Your task to perform on an android device: delete a single message in the gmail app Image 0: 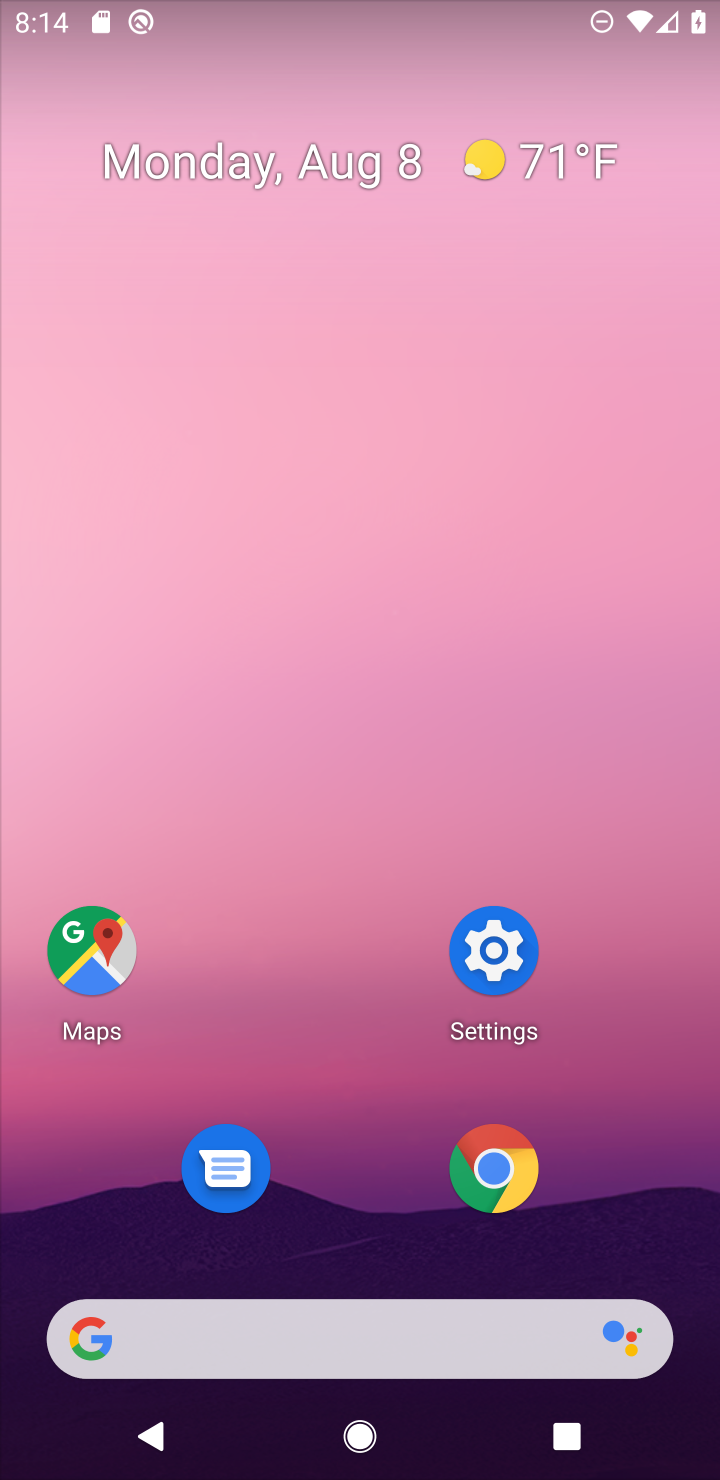
Step 0: drag from (302, 1008) to (530, 31)
Your task to perform on an android device: delete a single message in the gmail app Image 1: 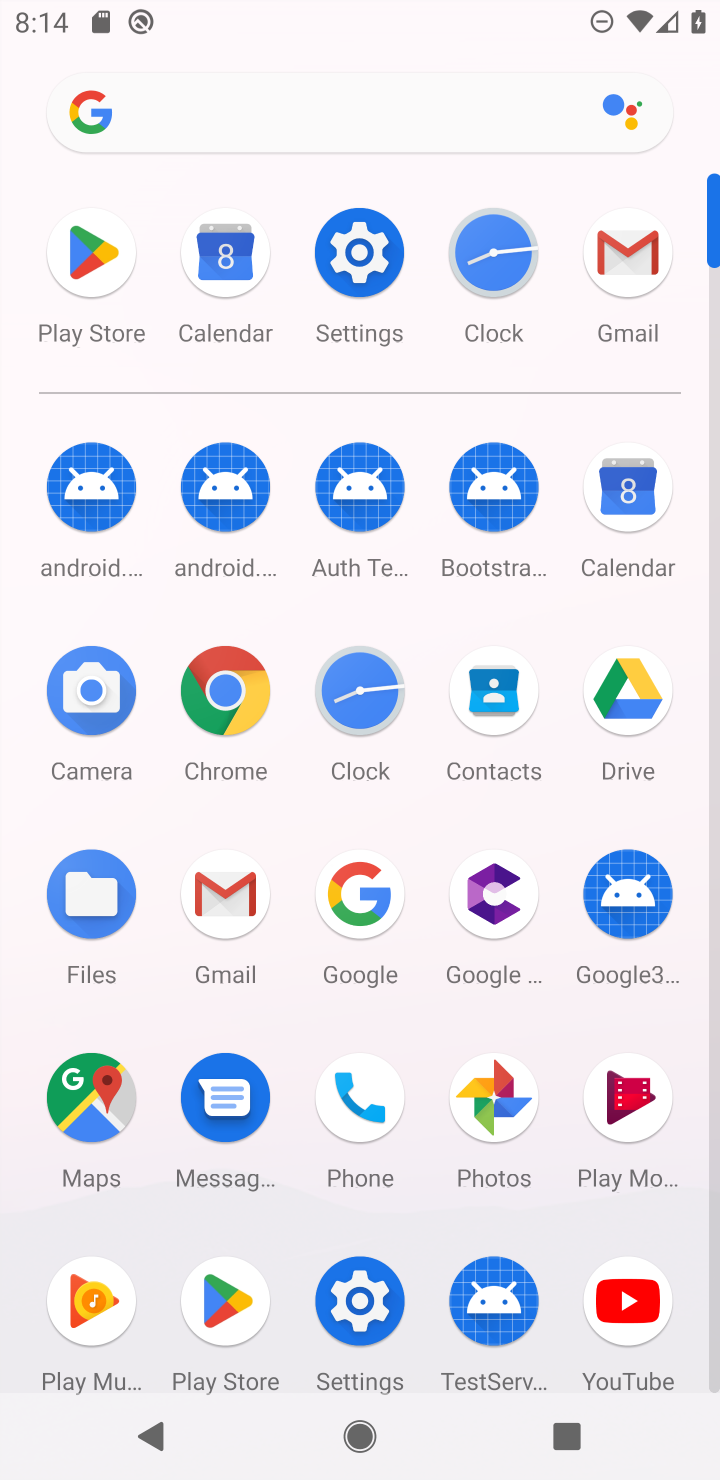
Step 1: click (215, 916)
Your task to perform on an android device: delete a single message in the gmail app Image 2: 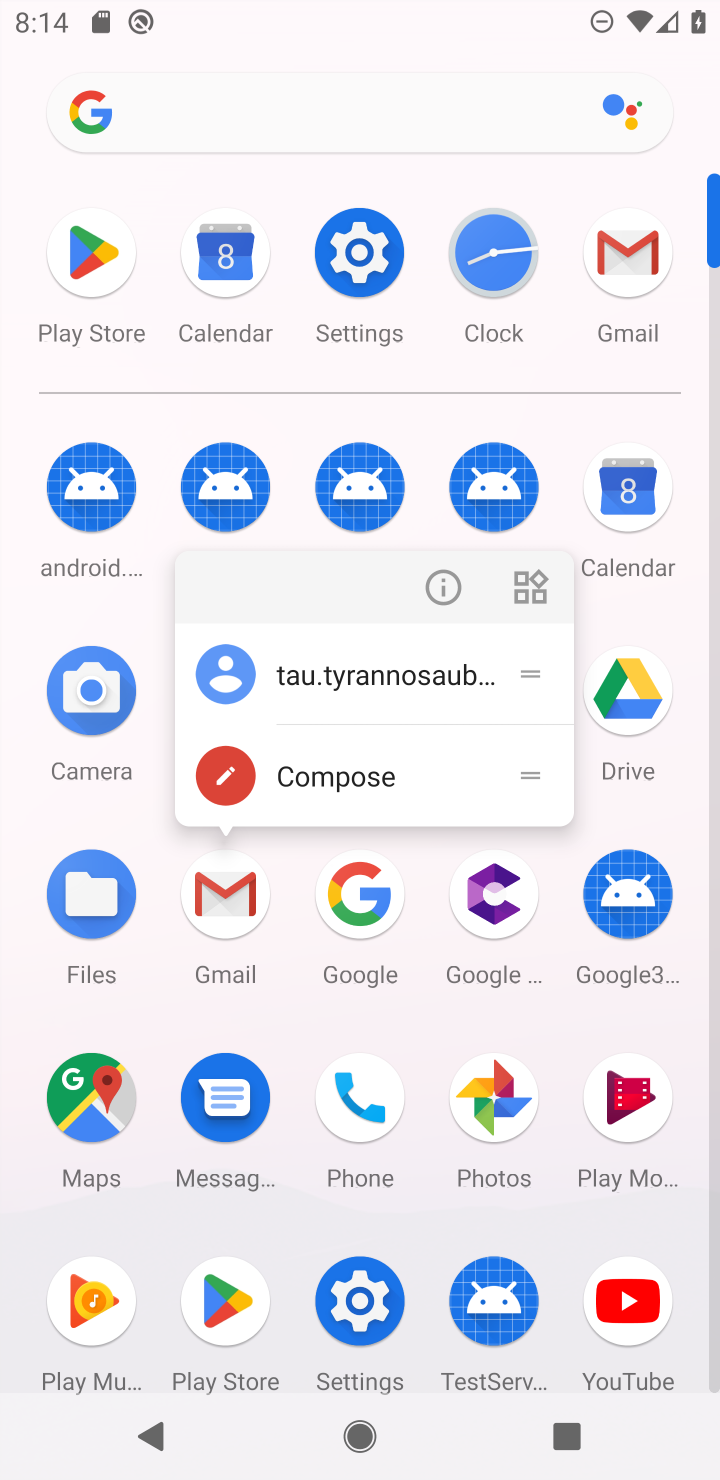
Step 2: click (245, 892)
Your task to perform on an android device: delete a single message in the gmail app Image 3: 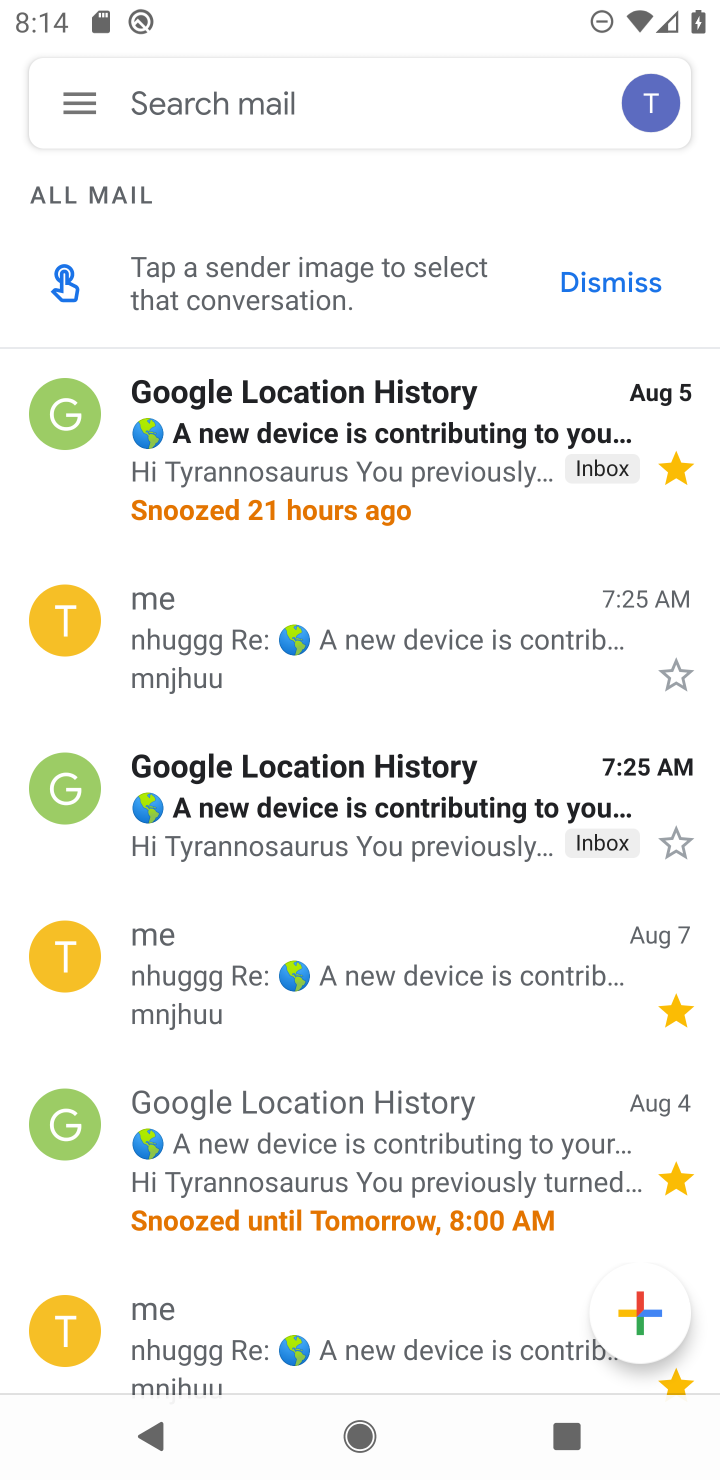
Step 3: click (71, 419)
Your task to perform on an android device: delete a single message in the gmail app Image 4: 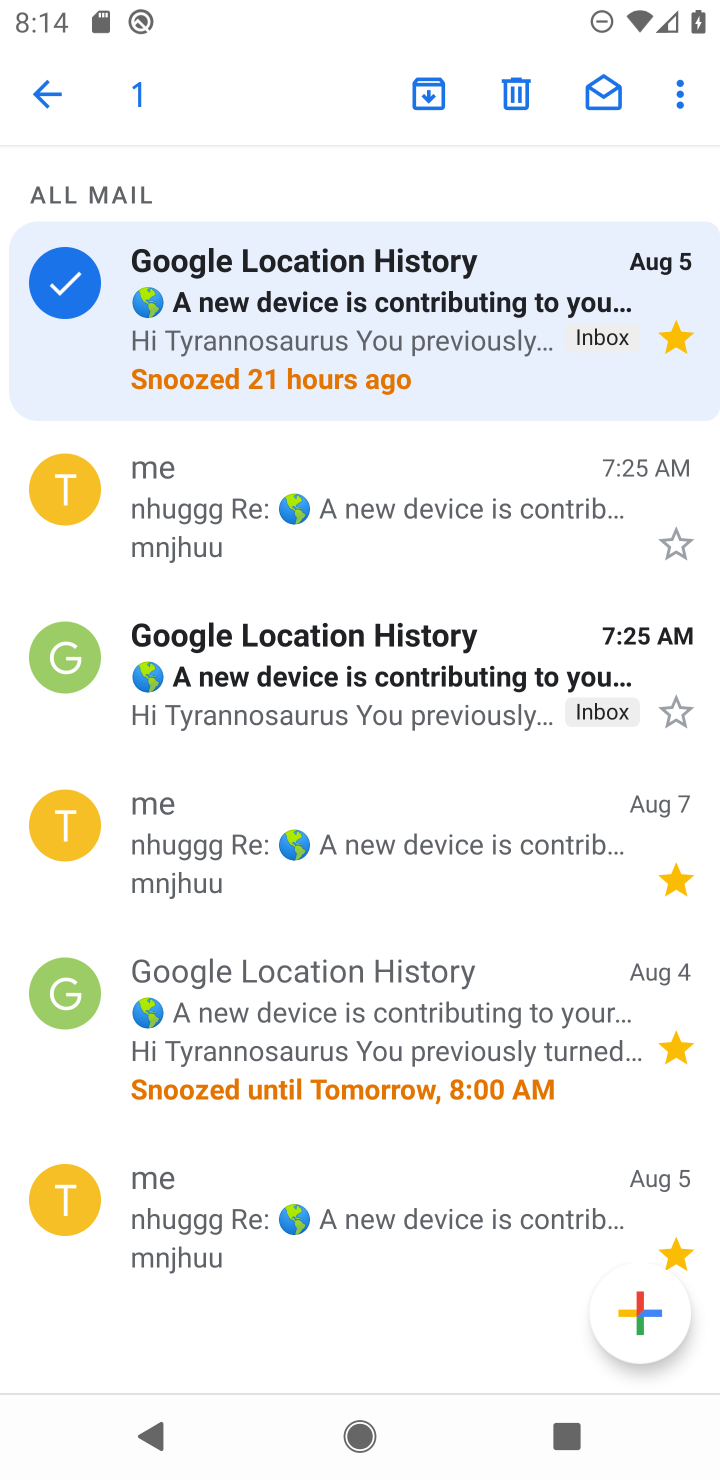
Step 4: click (517, 82)
Your task to perform on an android device: delete a single message in the gmail app Image 5: 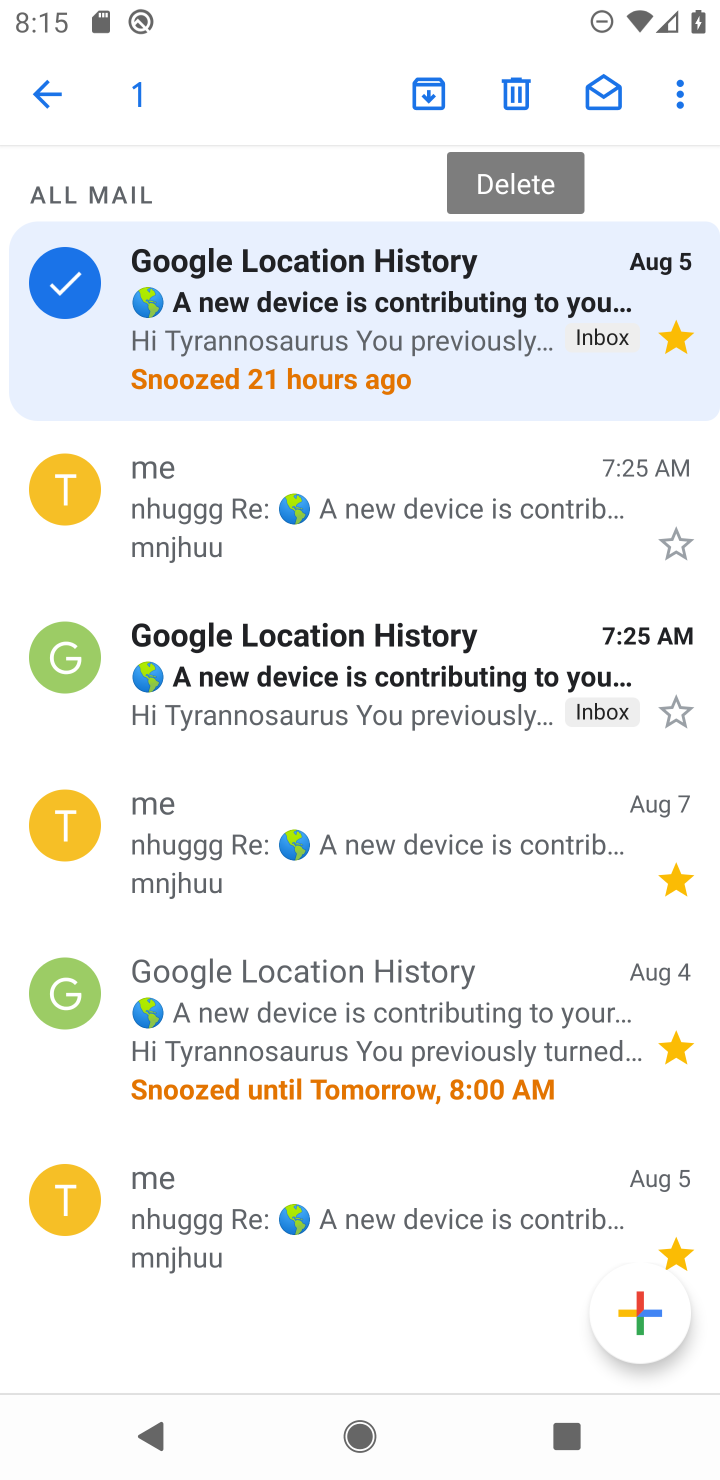
Step 5: click (510, 95)
Your task to perform on an android device: delete a single message in the gmail app Image 6: 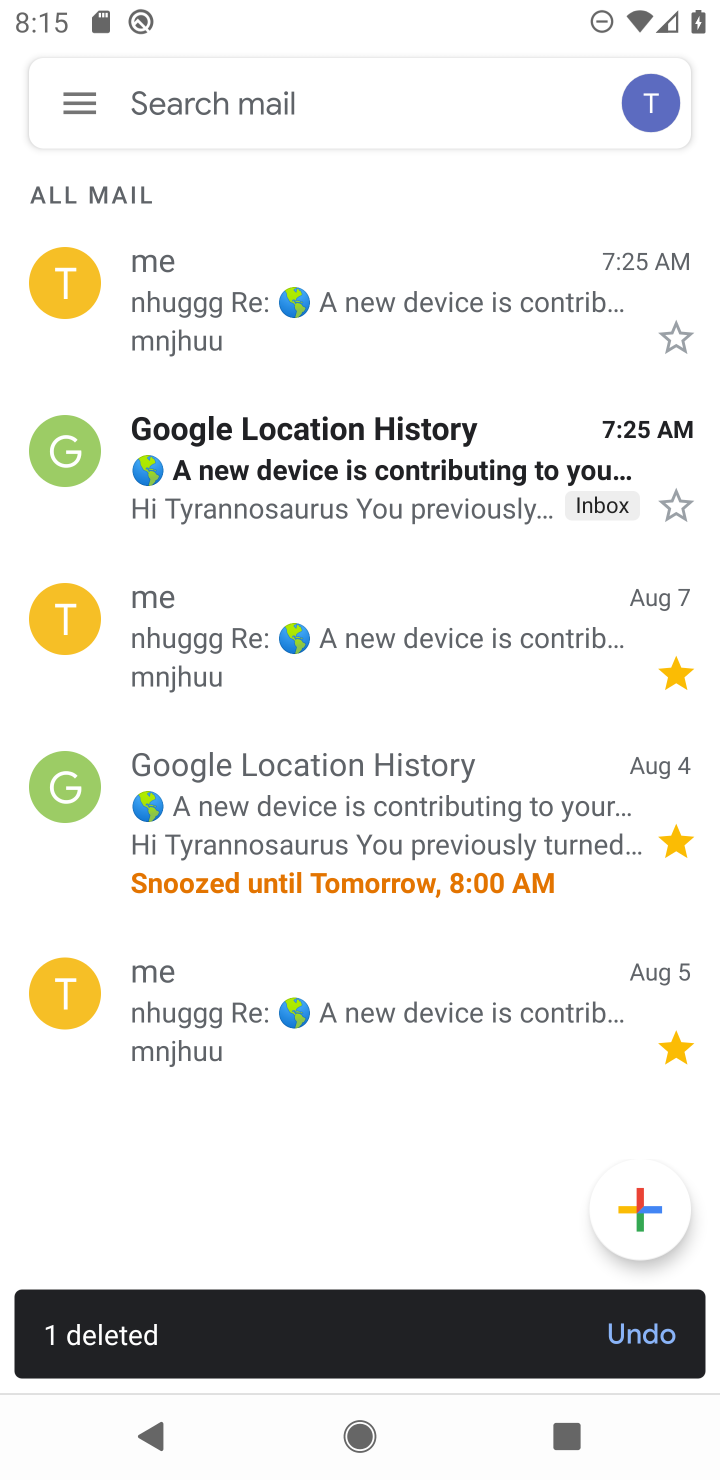
Step 6: task complete